Your task to perform on an android device: Is it going to rain today? Image 0: 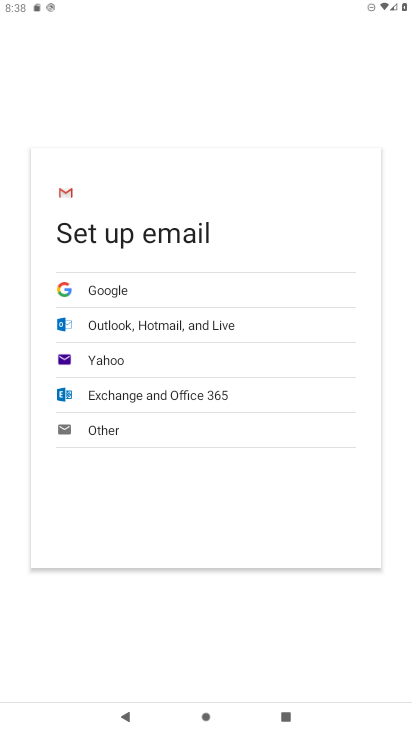
Step 0: press home button
Your task to perform on an android device: Is it going to rain today? Image 1: 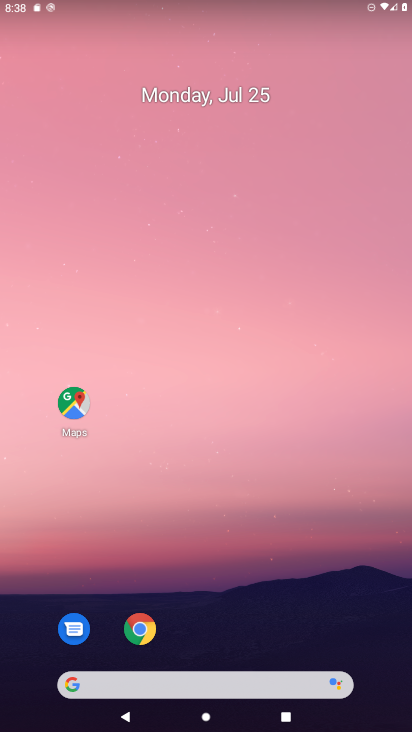
Step 1: click (124, 679)
Your task to perform on an android device: Is it going to rain today? Image 2: 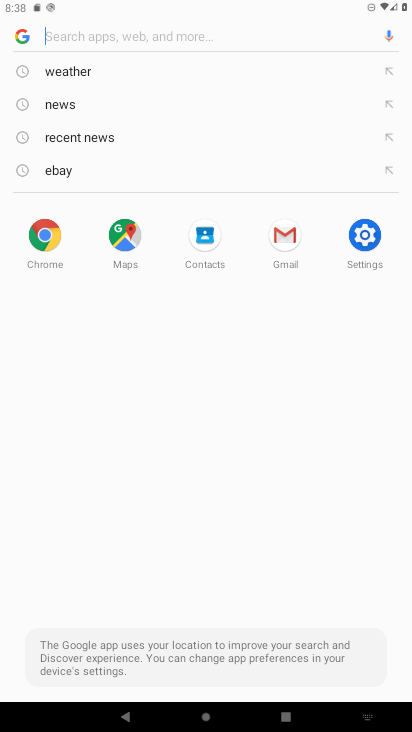
Step 2: click (74, 77)
Your task to perform on an android device: Is it going to rain today? Image 3: 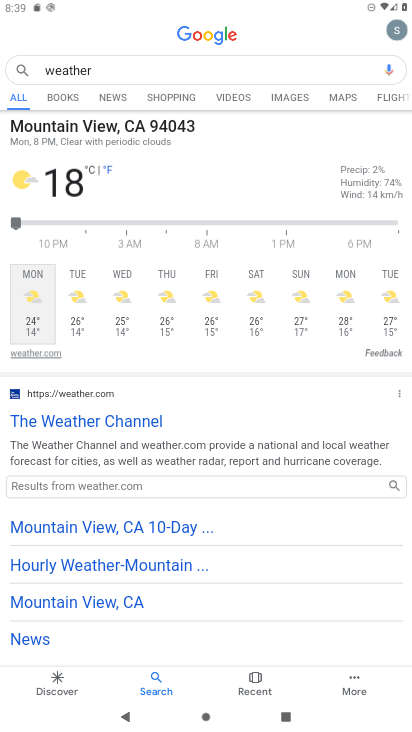
Step 3: click (30, 305)
Your task to perform on an android device: Is it going to rain today? Image 4: 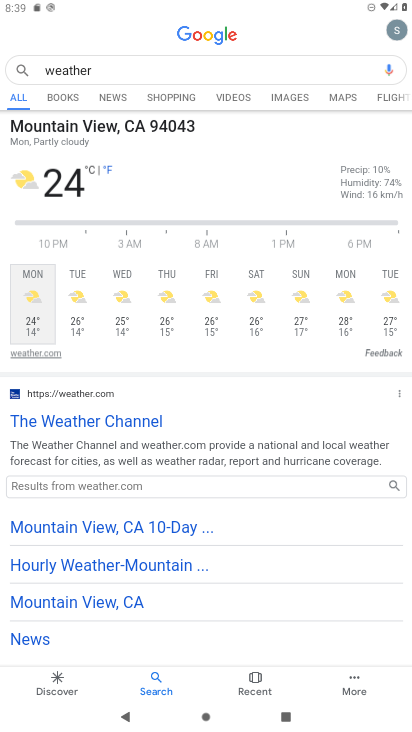
Step 4: task complete